Your task to perform on an android device: choose inbox layout in the gmail app Image 0: 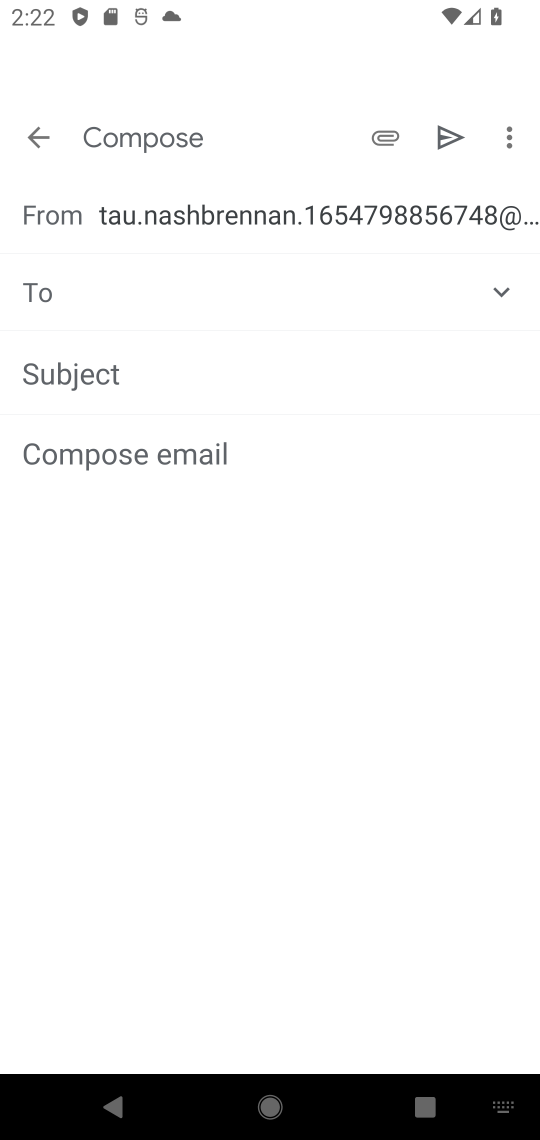
Step 0: press home button
Your task to perform on an android device: choose inbox layout in the gmail app Image 1: 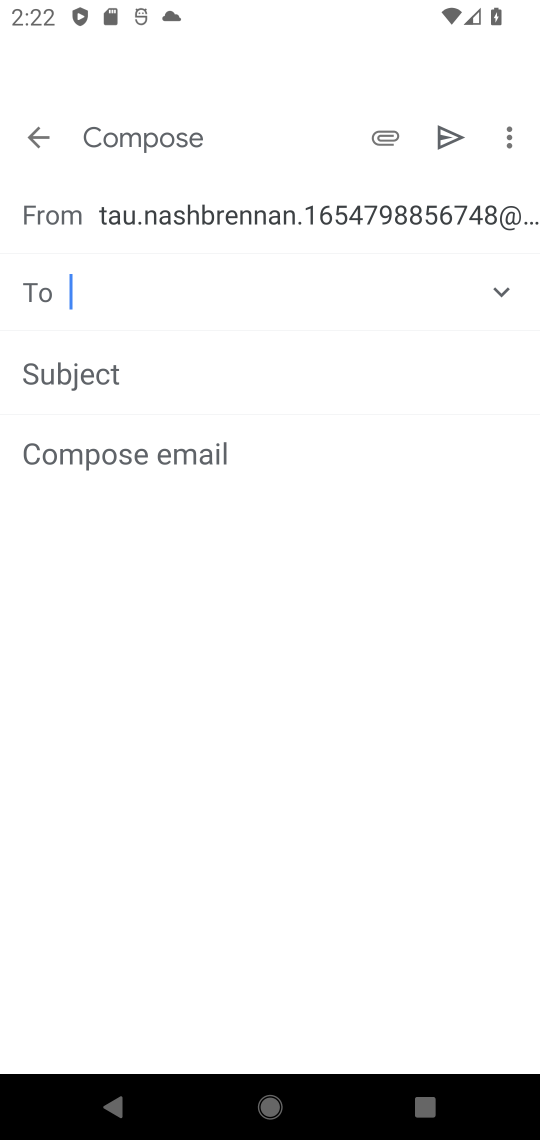
Step 1: drag from (485, 1025) to (265, 71)
Your task to perform on an android device: choose inbox layout in the gmail app Image 2: 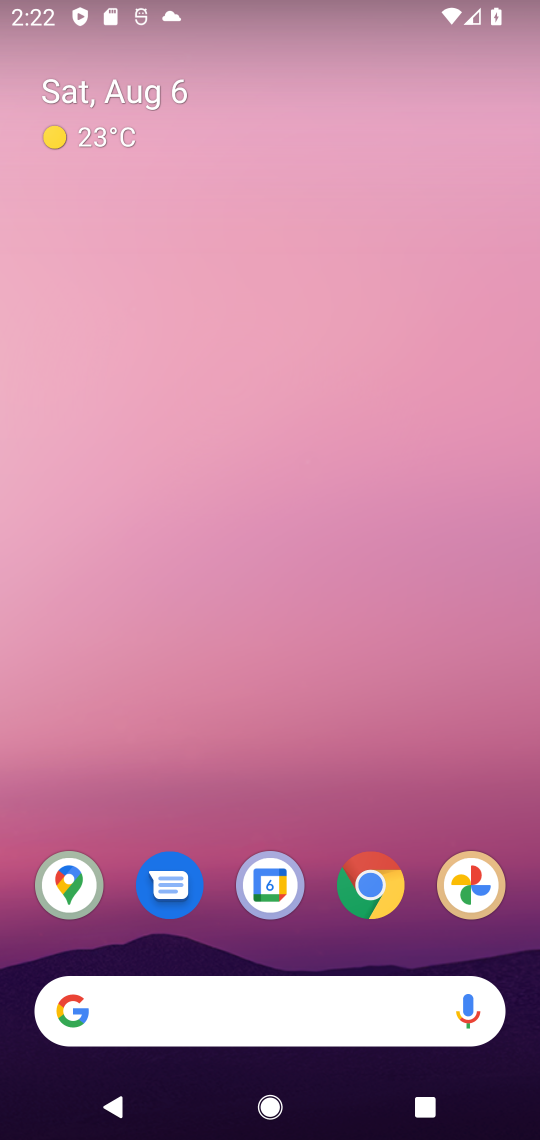
Step 2: drag from (436, 979) to (350, 39)
Your task to perform on an android device: choose inbox layout in the gmail app Image 3: 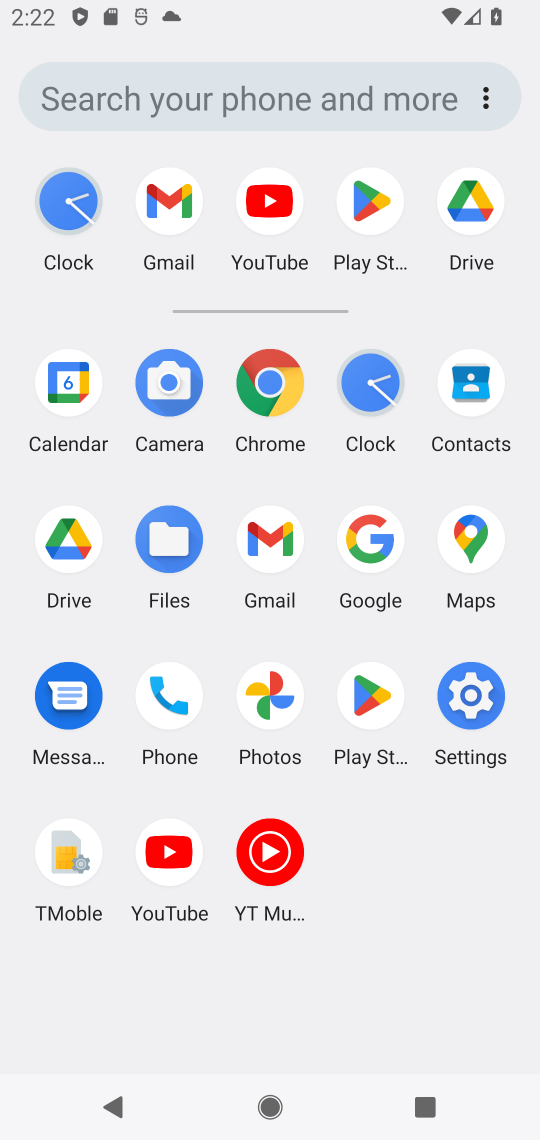
Step 3: click (281, 552)
Your task to perform on an android device: choose inbox layout in the gmail app Image 4: 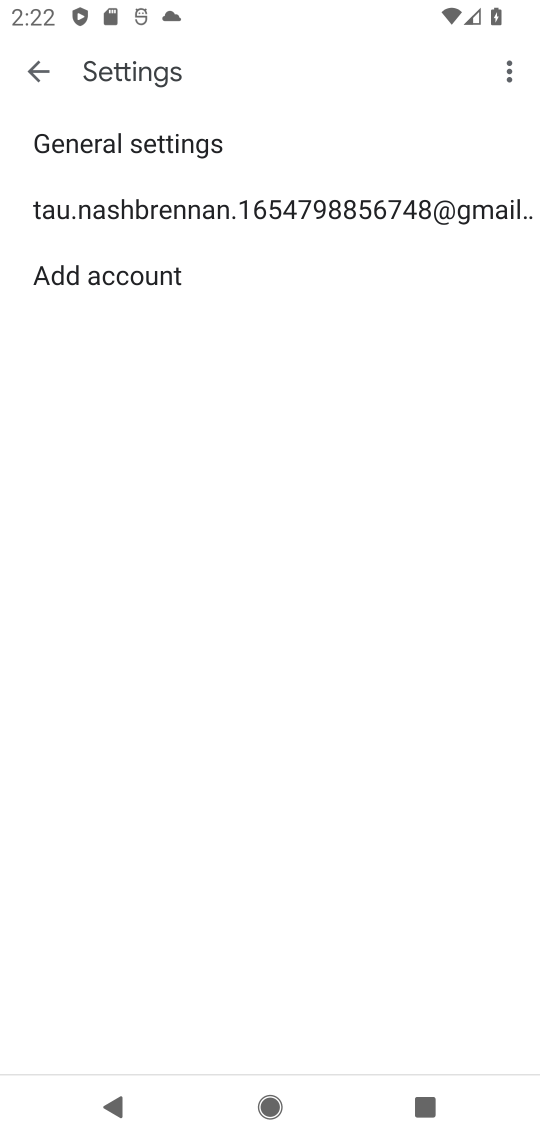
Step 4: press back button
Your task to perform on an android device: choose inbox layout in the gmail app Image 5: 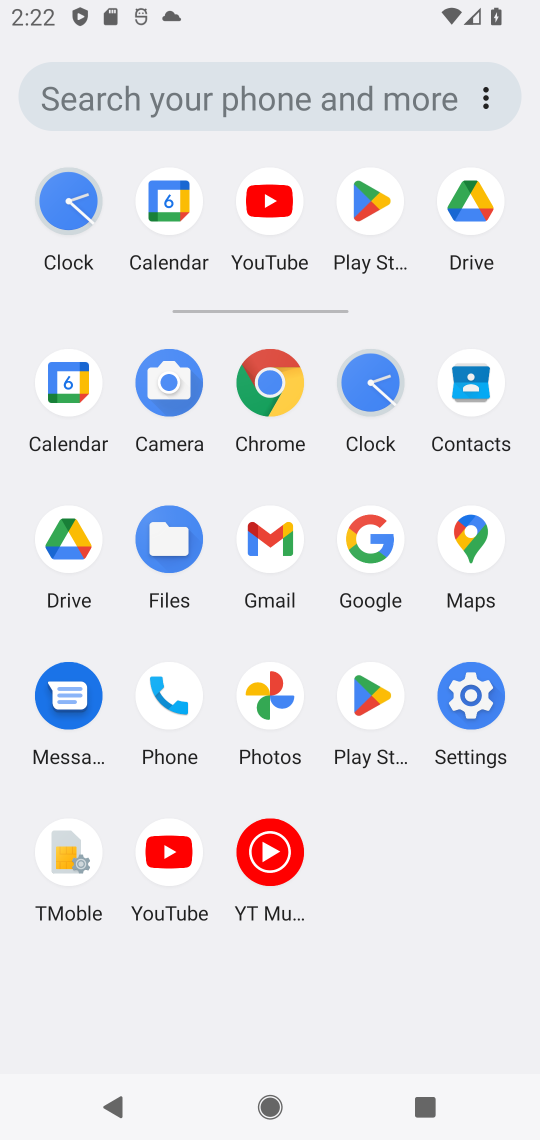
Step 5: click (271, 535)
Your task to perform on an android device: choose inbox layout in the gmail app Image 6: 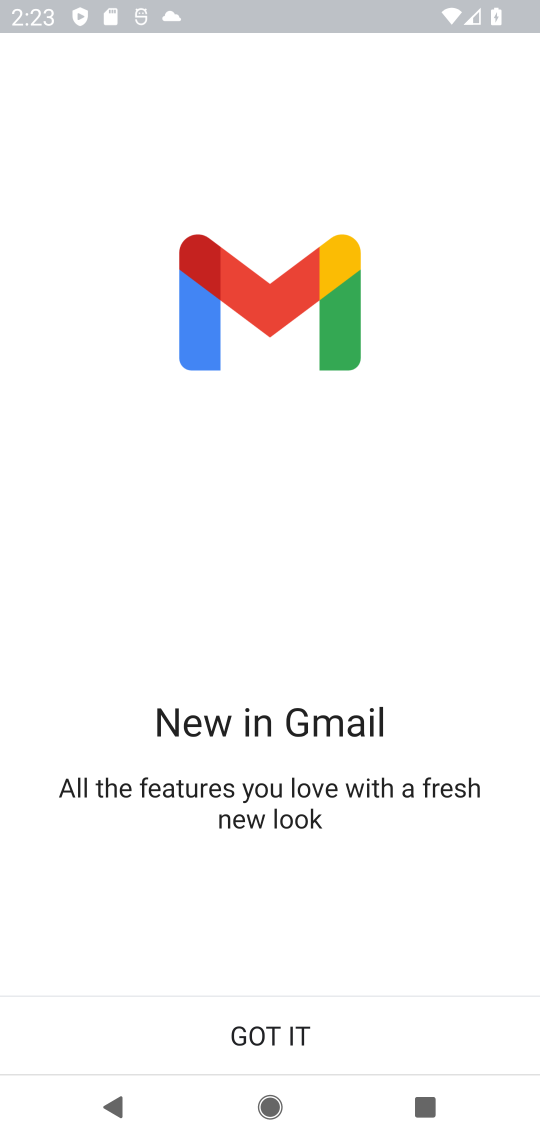
Step 6: click (217, 1033)
Your task to perform on an android device: choose inbox layout in the gmail app Image 7: 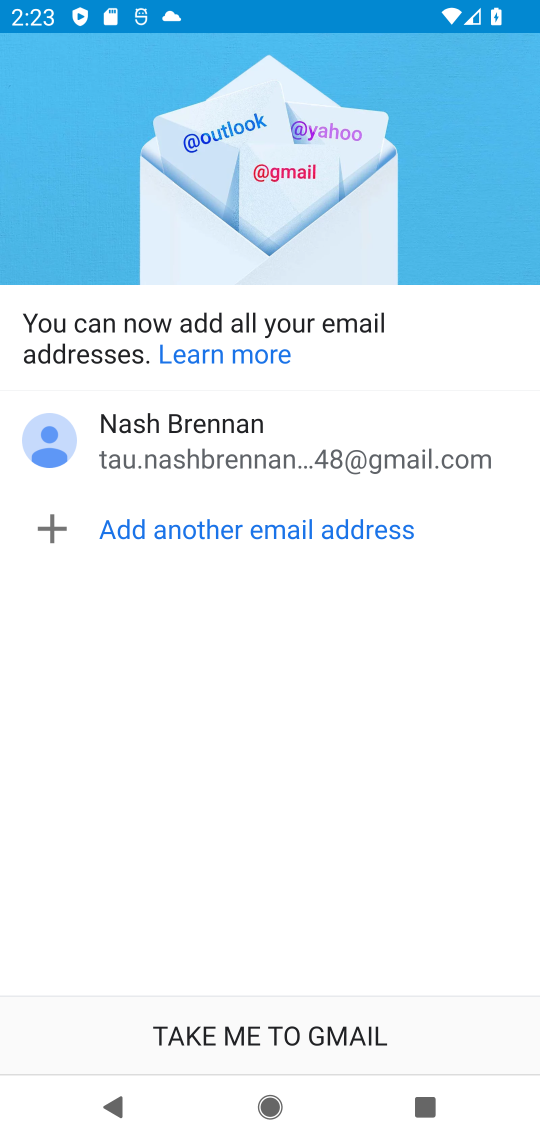
Step 7: click (217, 1033)
Your task to perform on an android device: choose inbox layout in the gmail app Image 8: 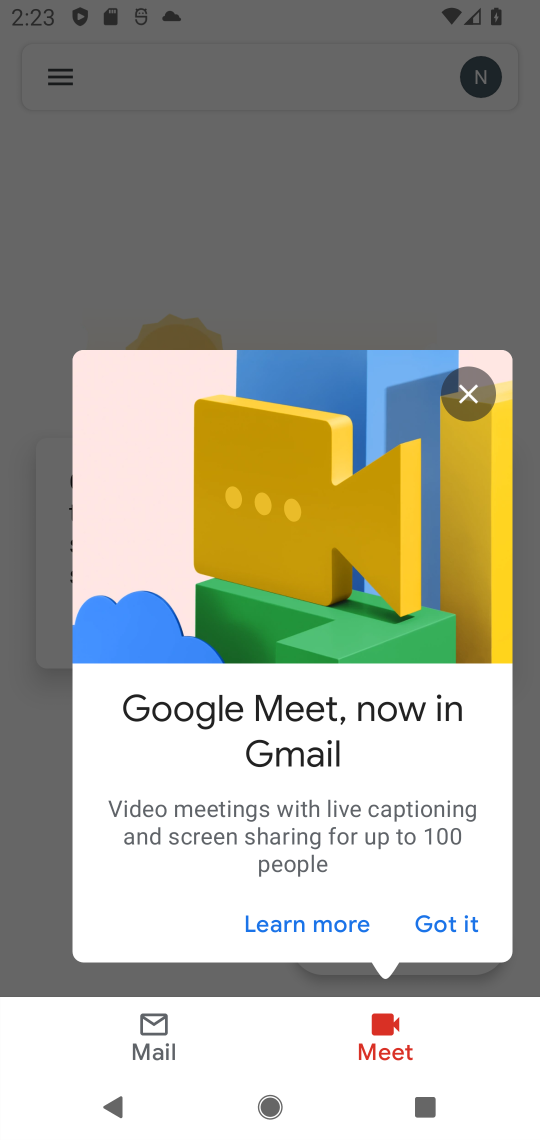
Step 8: click (455, 928)
Your task to perform on an android device: choose inbox layout in the gmail app Image 9: 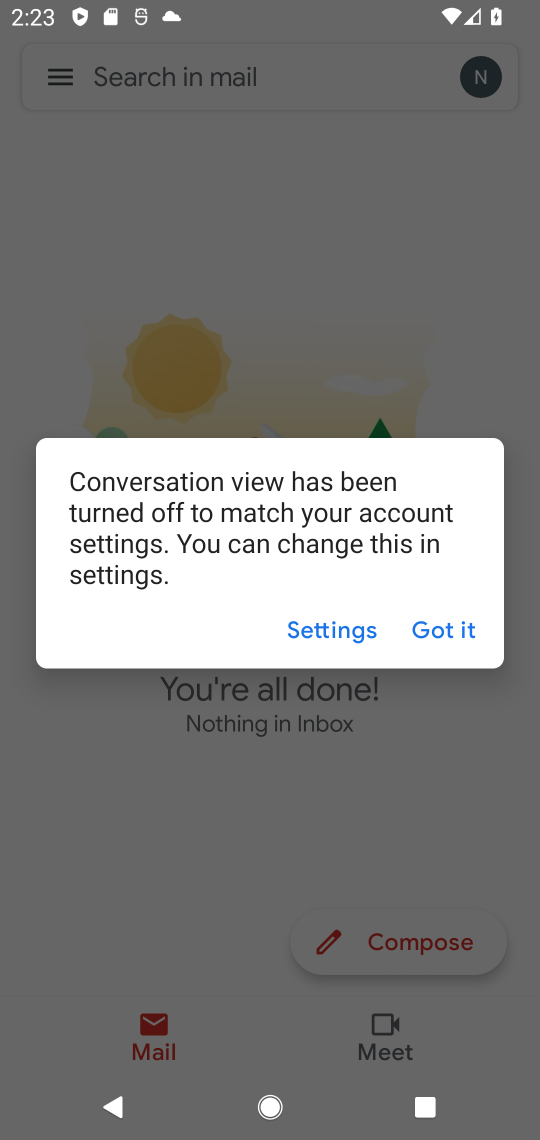
Step 9: click (439, 644)
Your task to perform on an android device: choose inbox layout in the gmail app Image 10: 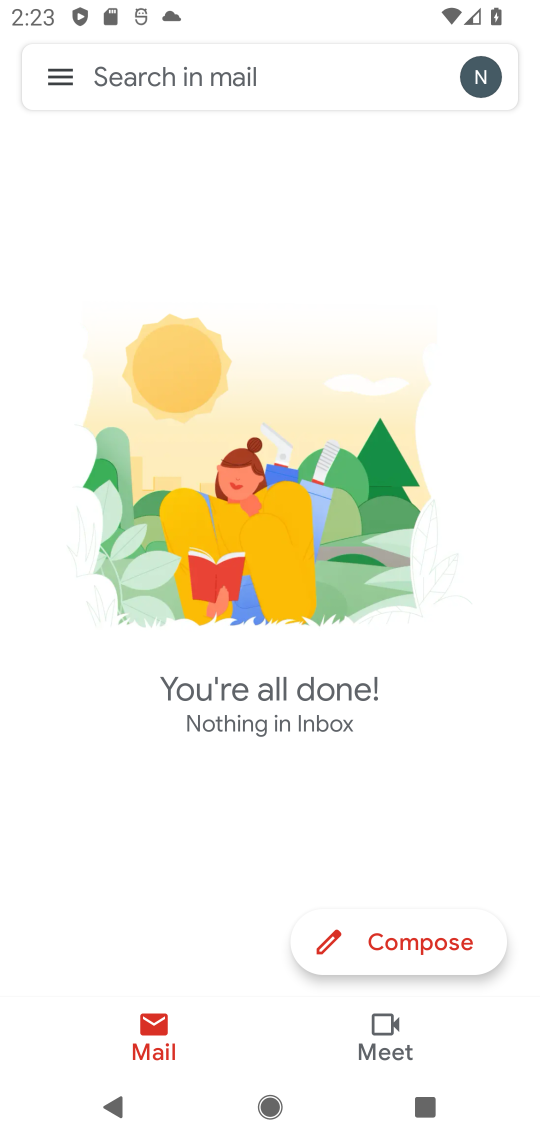
Step 10: task complete